Your task to perform on an android device: change notifications settings Image 0: 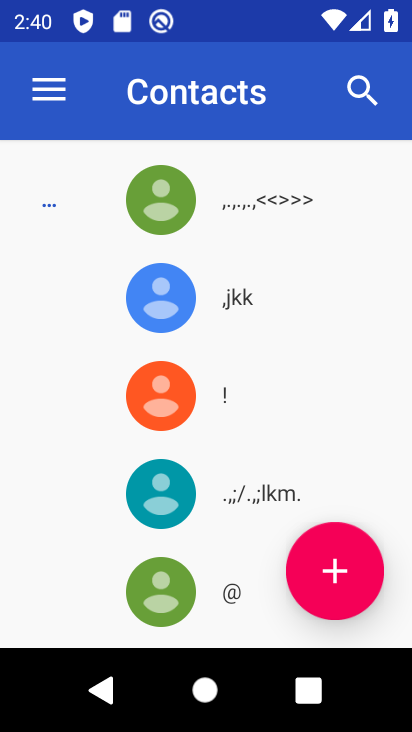
Step 0: press home button
Your task to perform on an android device: change notifications settings Image 1: 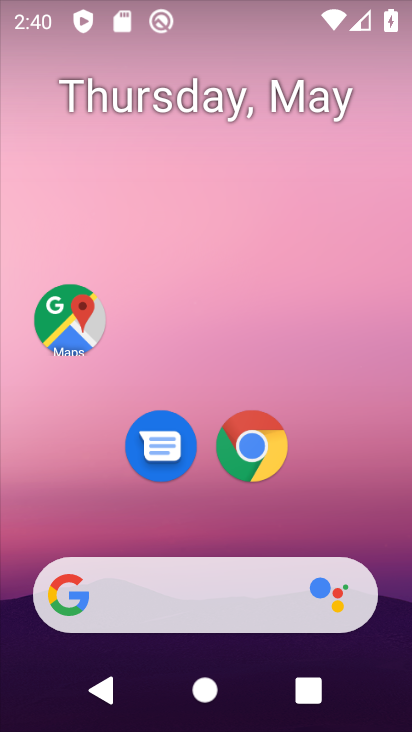
Step 1: drag from (330, 543) to (291, 0)
Your task to perform on an android device: change notifications settings Image 2: 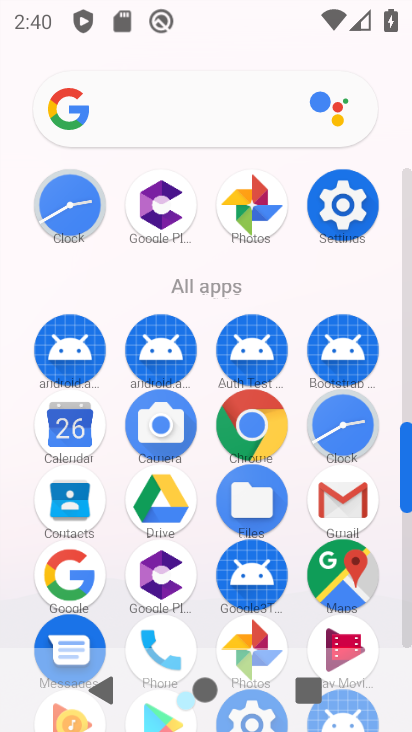
Step 2: click (353, 210)
Your task to perform on an android device: change notifications settings Image 3: 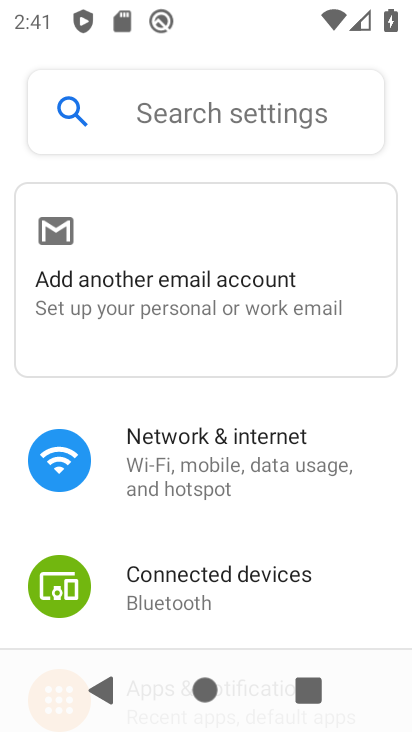
Step 3: drag from (305, 516) to (269, 191)
Your task to perform on an android device: change notifications settings Image 4: 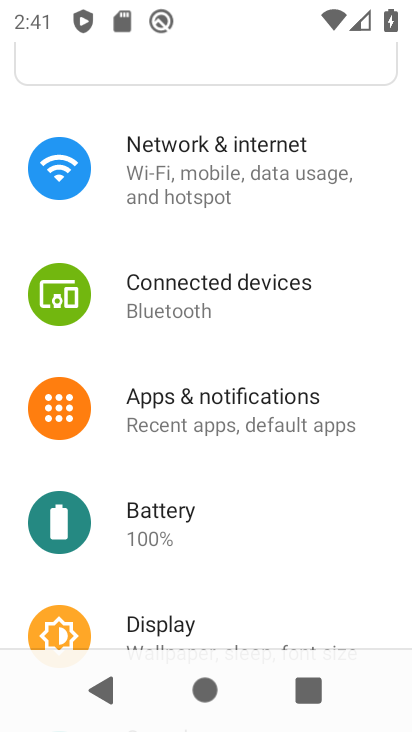
Step 4: click (213, 414)
Your task to perform on an android device: change notifications settings Image 5: 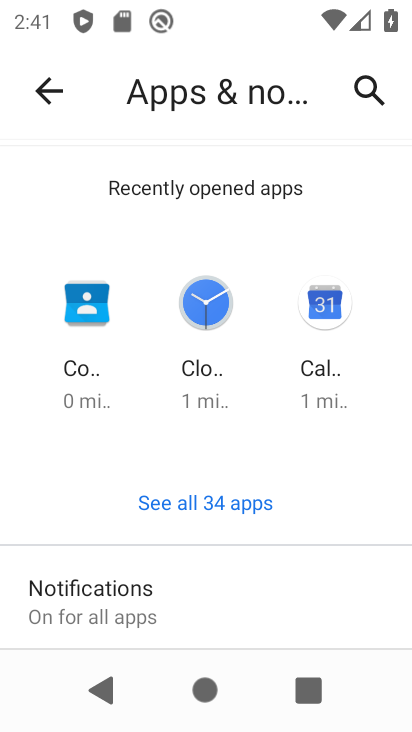
Step 5: drag from (306, 515) to (295, 185)
Your task to perform on an android device: change notifications settings Image 6: 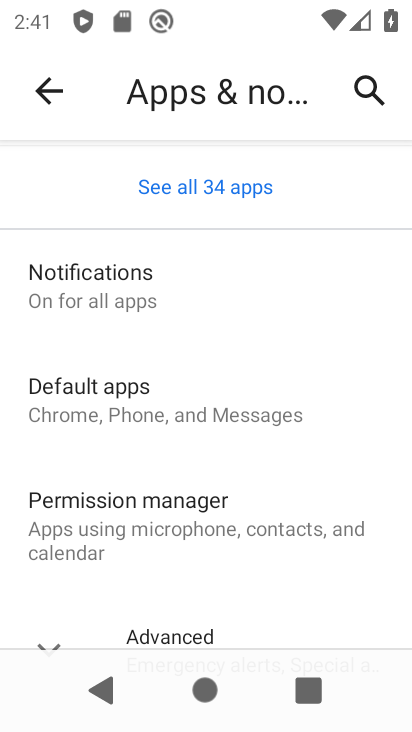
Step 6: click (109, 297)
Your task to perform on an android device: change notifications settings Image 7: 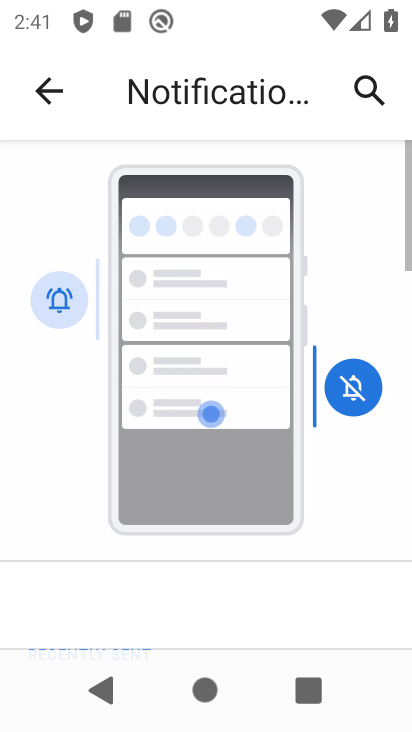
Step 7: drag from (280, 507) to (277, 126)
Your task to perform on an android device: change notifications settings Image 8: 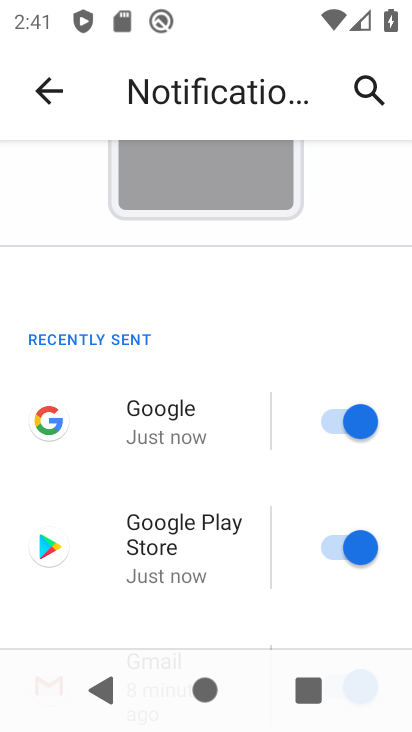
Step 8: drag from (223, 429) to (193, 75)
Your task to perform on an android device: change notifications settings Image 9: 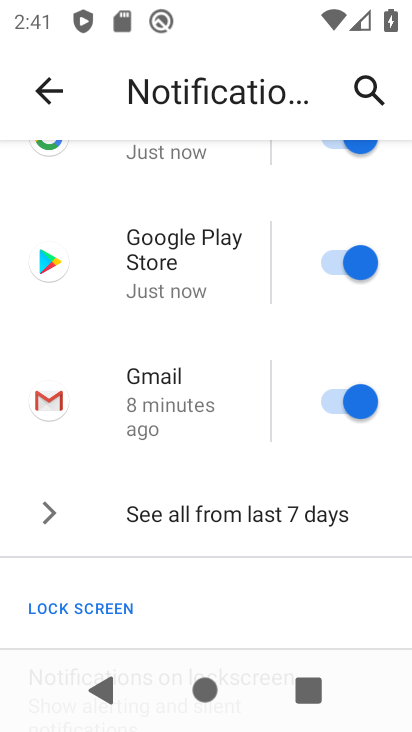
Step 9: drag from (129, 527) to (139, 361)
Your task to perform on an android device: change notifications settings Image 10: 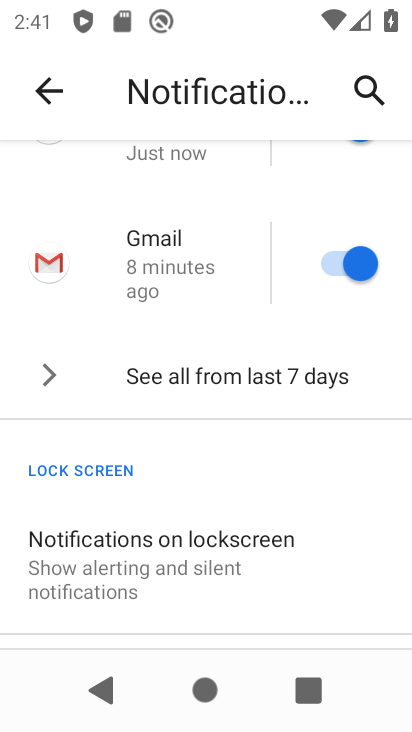
Step 10: click (197, 373)
Your task to perform on an android device: change notifications settings Image 11: 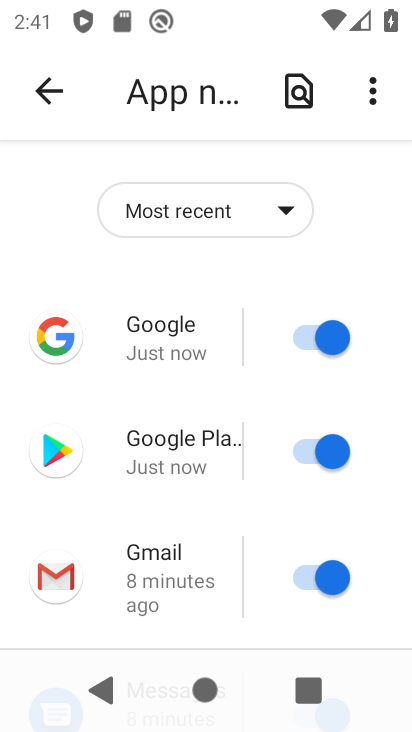
Step 11: click (289, 207)
Your task to perform on an android device: change notifications settings Image 12: 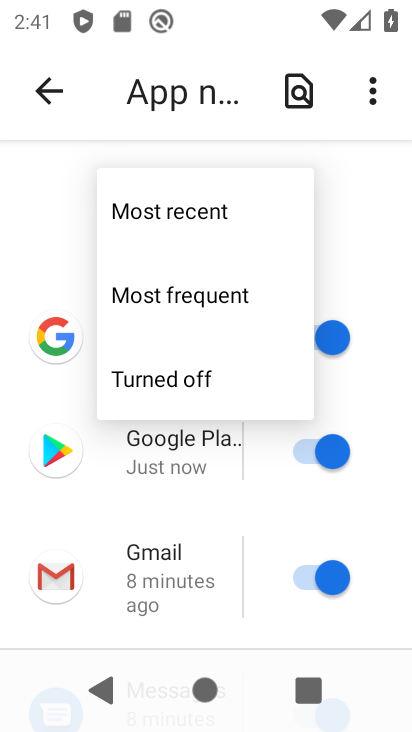
Step 12: click (167, 299)
Your task to perform on an android device: change notifications settings Image 13: 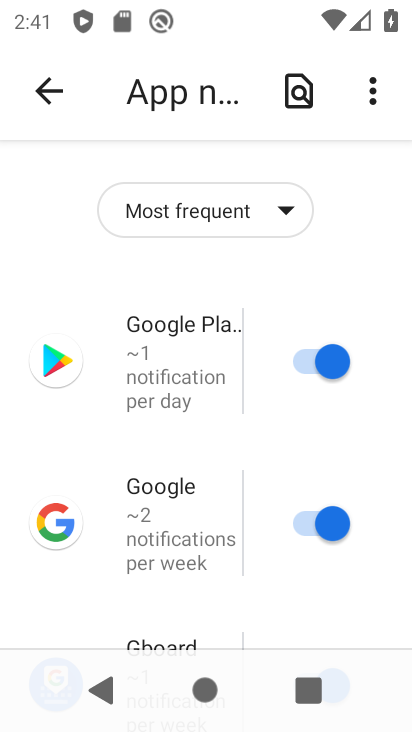
Step 13: task complete